Your task to perform on an android device: allow cookies in the chrome app Image 0: 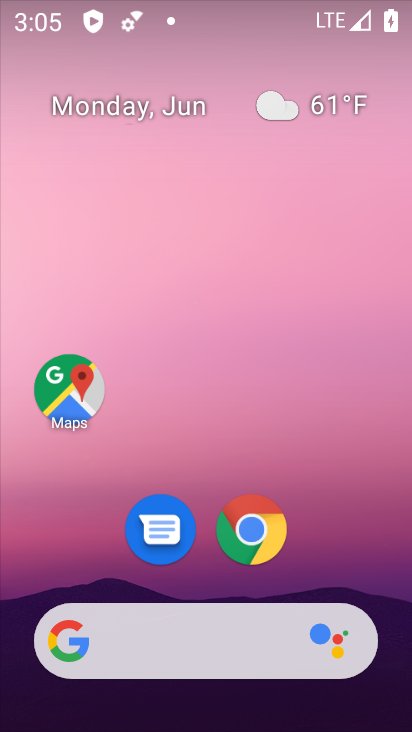
Step 0: drag from (229, 110) to (188, 115)
Your task to perform on an android device: allow cookies in the chrome app Image 1: 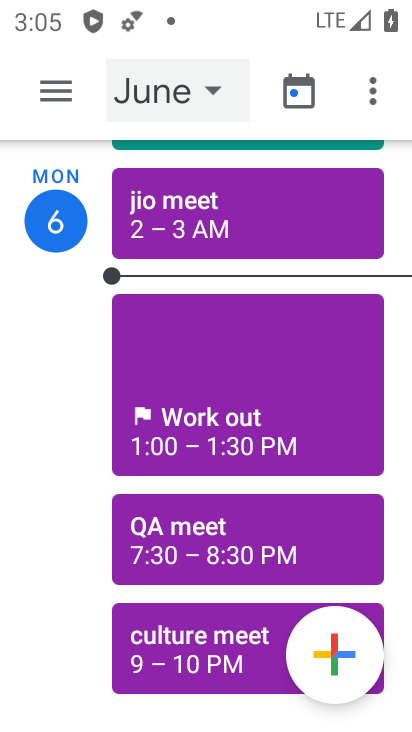
Step 1: drag from (249, 608) to (165, 80)
Your task to perform on an android device: allow cookies in the chrome app Image 2: 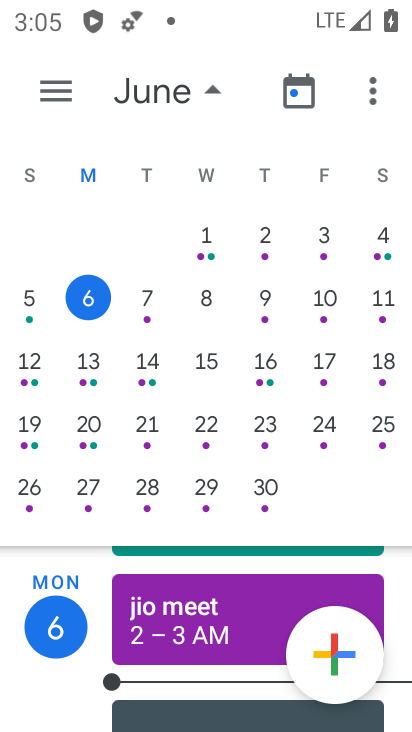
Step 2: press back button
Your task to perform on an android device: allow cookies in the chrome app Image 3: 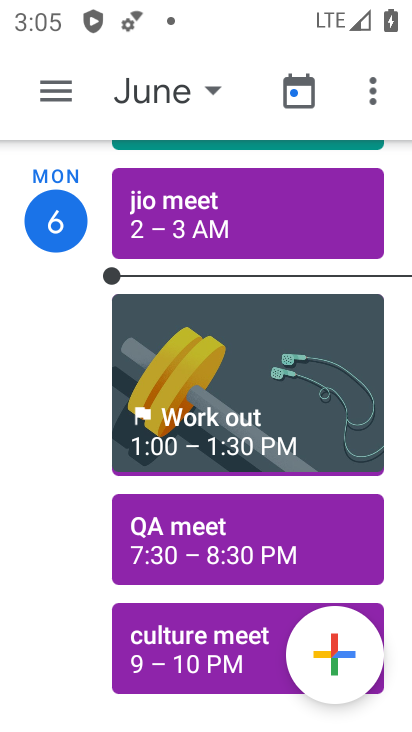
Step 3: press home button
Your task to perform on an android device: allow cookies in the chrome app Image 4: 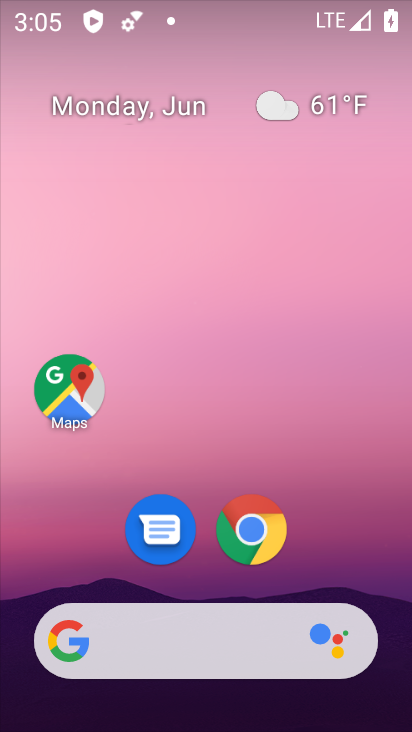
Step 4: drag from (216, 699) to (185, 110)
Your task to perform on an android device: allow cookies in the chrome app Image 5: 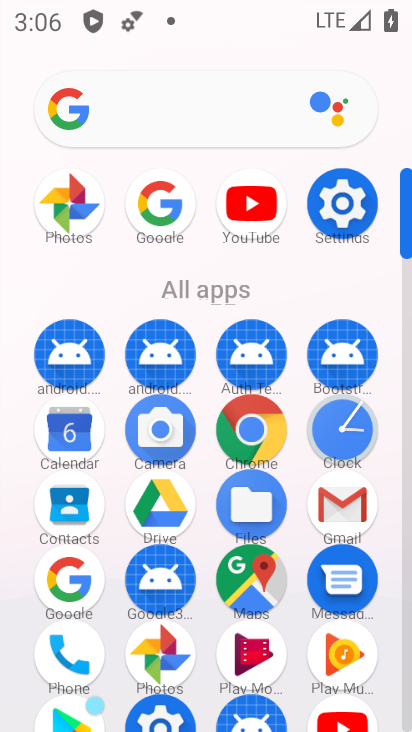
Step 5: click (254, 431)
Your task to perform on an android device: allow cookies in the chrome app Image 6: 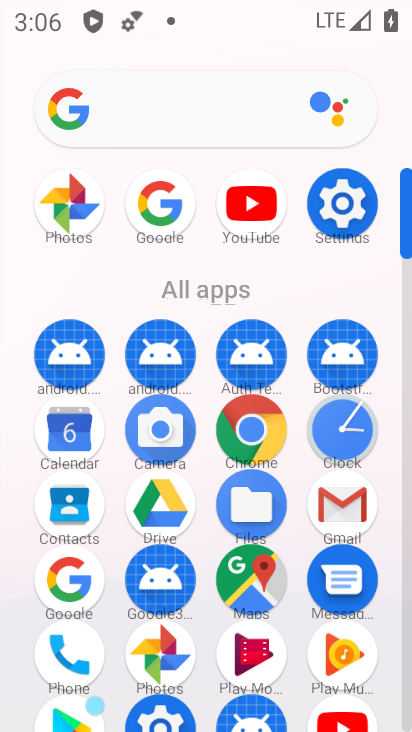
Step 6: click (253, 430)
Your task to perform on an android device: allow cookies in the chrome app Image 7: 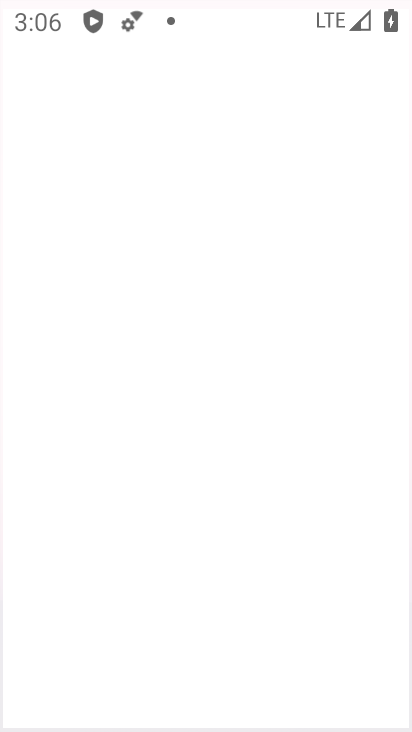
Step 7: click (251, 432)
Your task to perform on an android device: allow cookies in the chrome app Image 8: 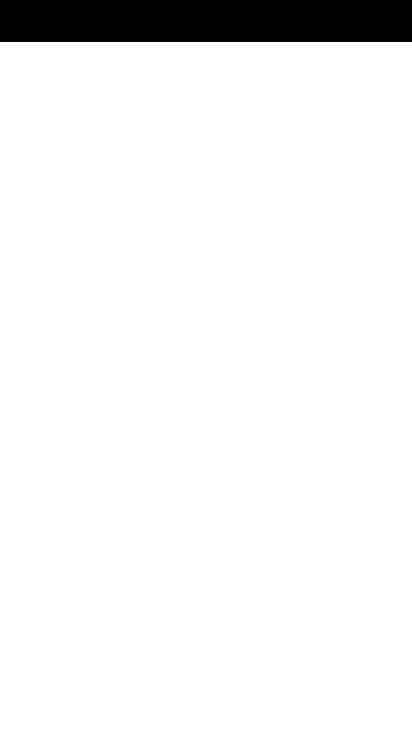
Step 8: click (250, 433)
Your task to perform on an android device: allow cookies in the chrome app Image 9: 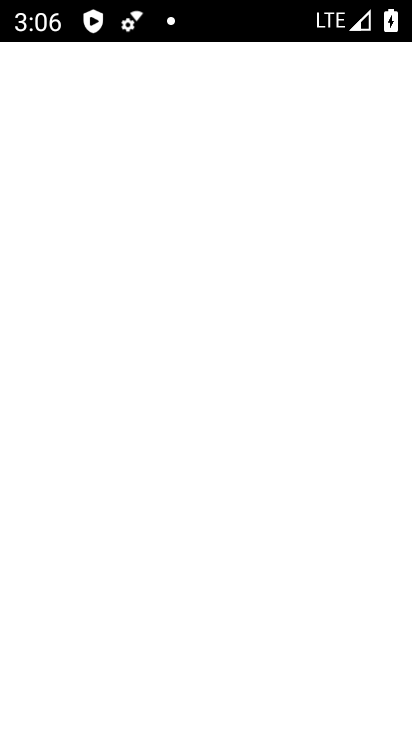
Step 9: click (250, 433)
Your task to perform on an android device: allow cookies in the chrome app Image 10: 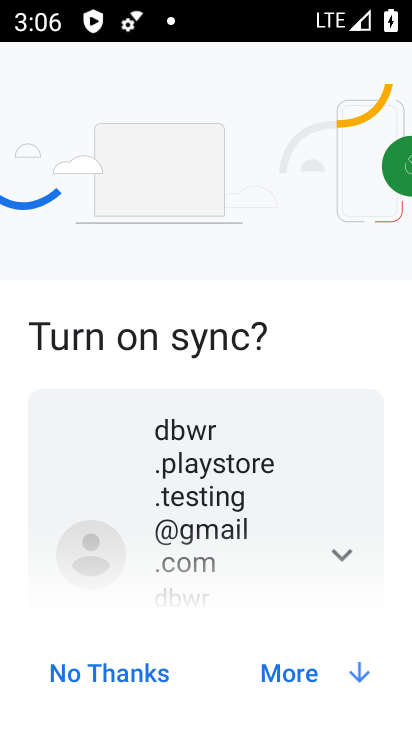
Step 10: click (318, 691)
Your task to perform on an android device: allow cookies in the chrome app Image 11: 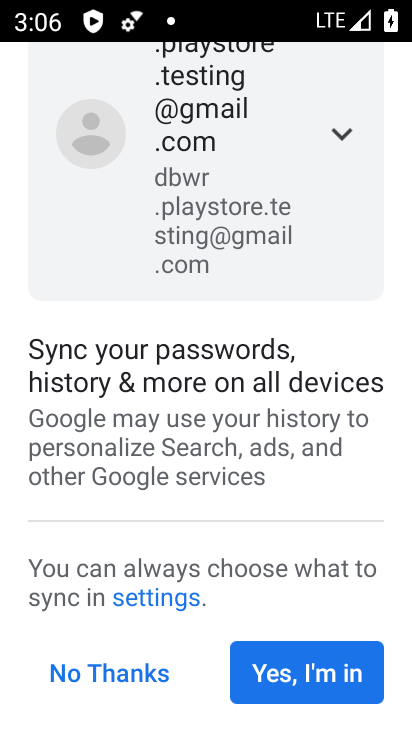
Step 11: click (333, 686)
Your task to perform on an android device: allow cookies in the chrome app Image 12: 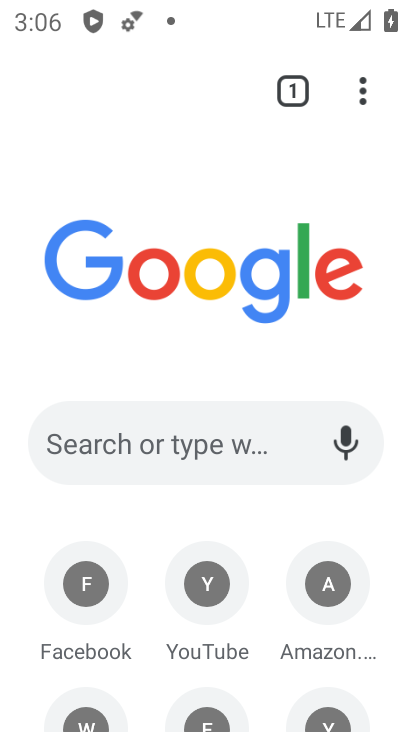
Step 12: drag from (357, 101) to (77, 558)
Your task to perform on an android device: allow cookies in the chrome app Image 13: 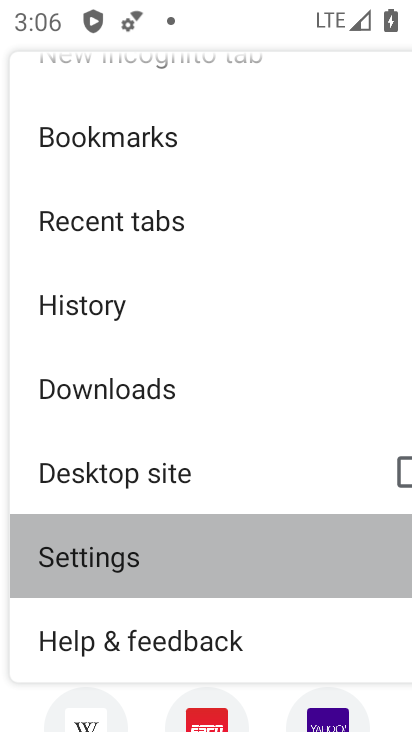
Step 13: click (77, 559)
Your task to perform on an android device: allow cookies in the chrome app Image 14: 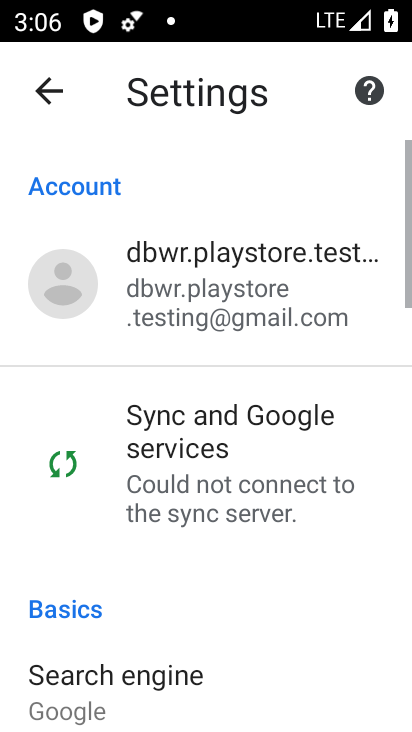
Step 14: drag from (253, 565) to (234, 140)
Your task to perform on an android device: allow cookies in the chrome app Image 15: 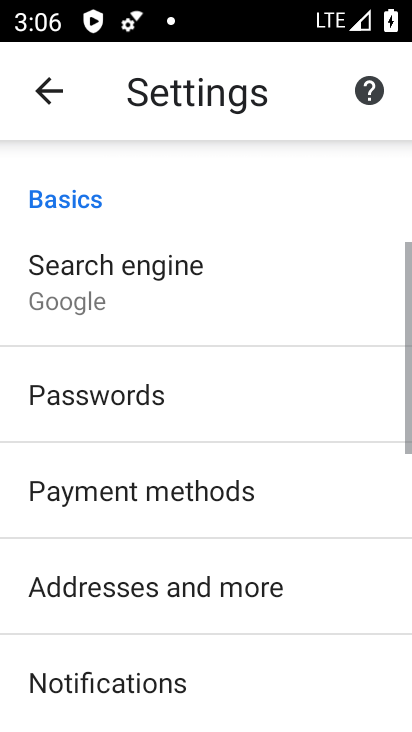
Step 15: drag from (268, 586) to (219, 225)
Your task to perform on an android device: allow cookies in the chrome app Image 16: 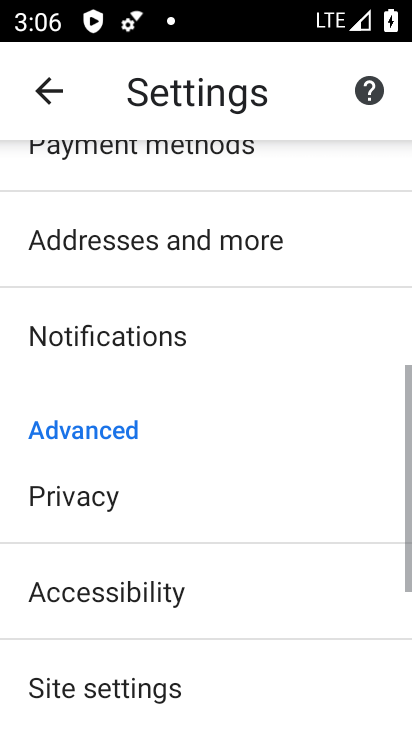
Step 16: click (131, 202)
Your task to perform on an android device: allow cookies in the chrome app Image 17: 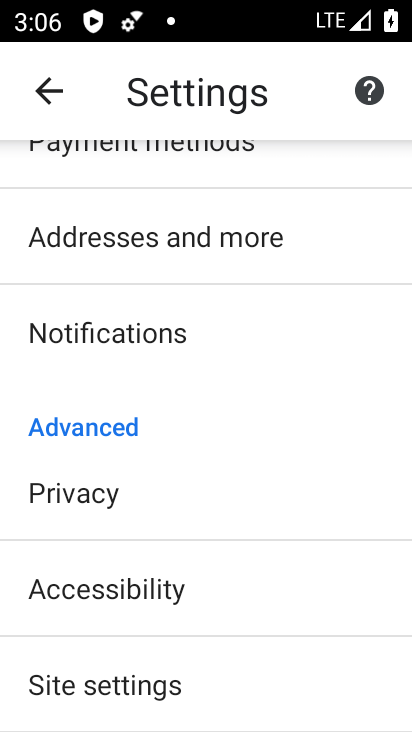
Step 17: click (85, 687)
Your task to perform on an android device: allow cookies in the chrome app Image 18: 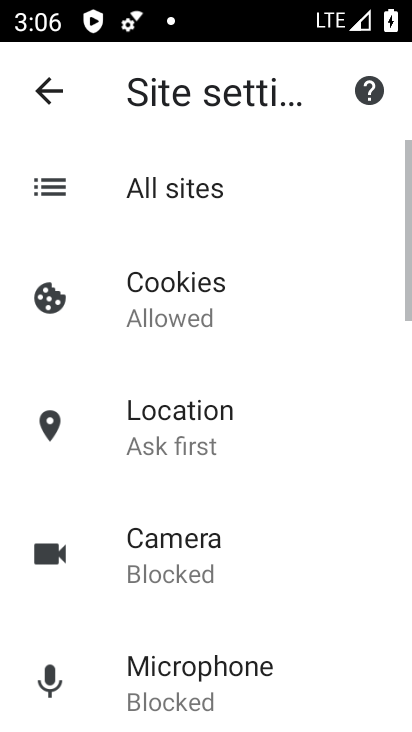
Step 18: click (185, 305)
Your task to perform on an android device: allow cookies in the chrome app Image 19: 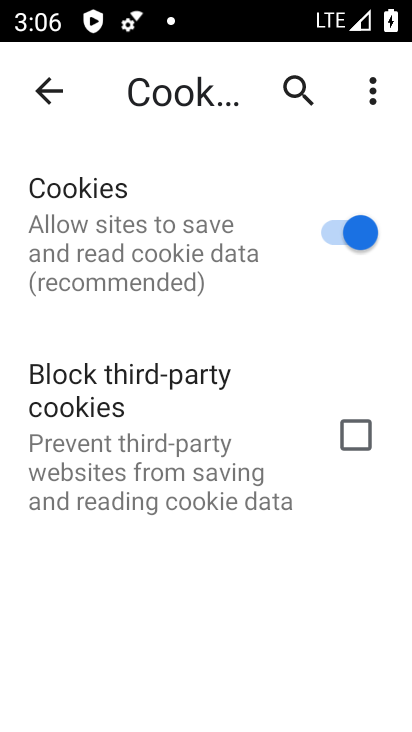
Step 19: task complete